Your task to perform on an android device: Turn on the flashlight Image 0: 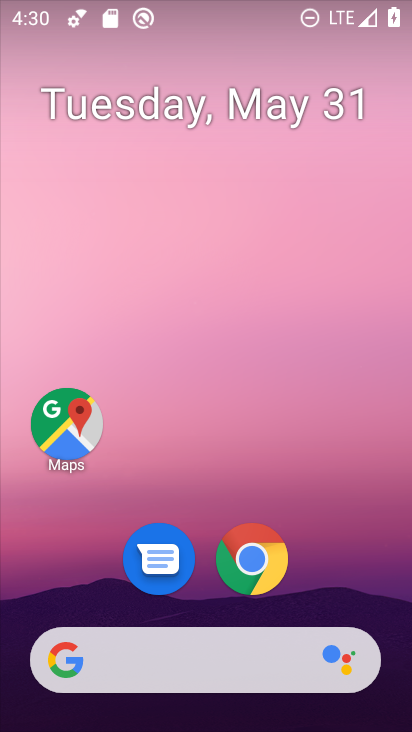
Step 0: drag from (223, 717) to (250, 174)
Your task to perform on an android device: Turn on the flashlight Image 1: 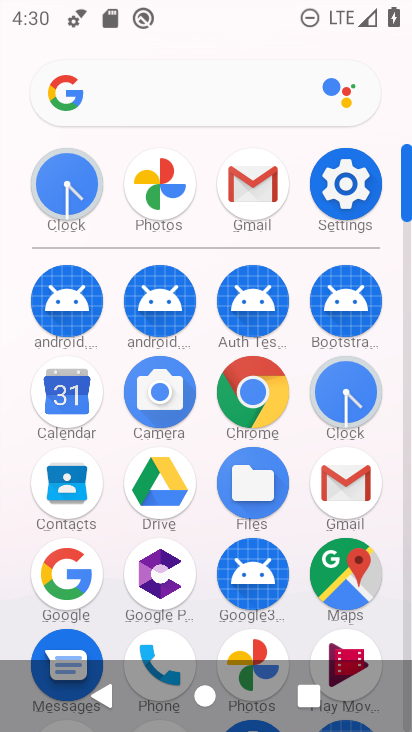
Step 1: click (343, 176)
Your task to perform on an android device: Turn on the flashlight Image 2: 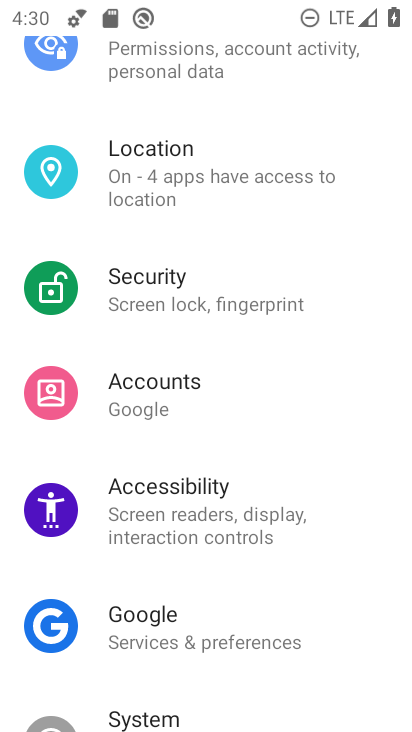
Step 2: task complete